Your task to perform on an android device: Open display settings Image 0: 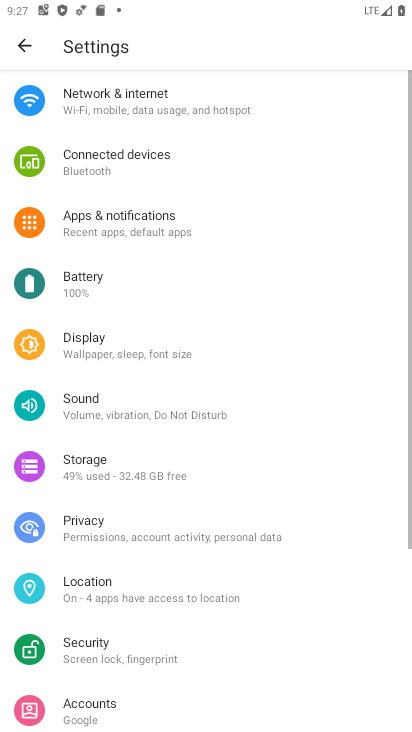
Step 0: press back button
Your task to perform on an android device: Open display settings Image 1: 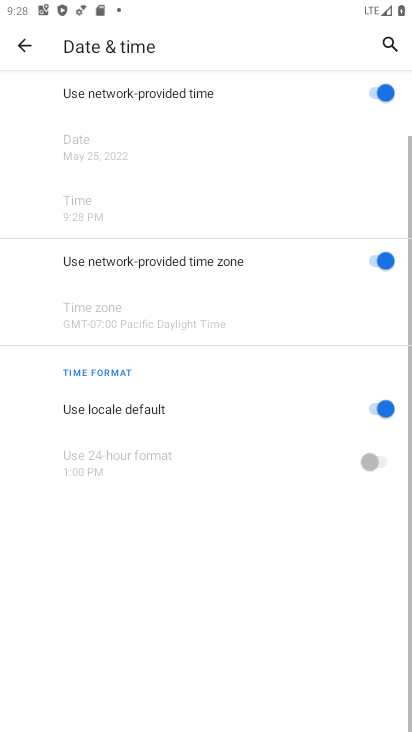
Step 1: click (16, 42)
Your task to perform on an android device: Open display settings Image 2: 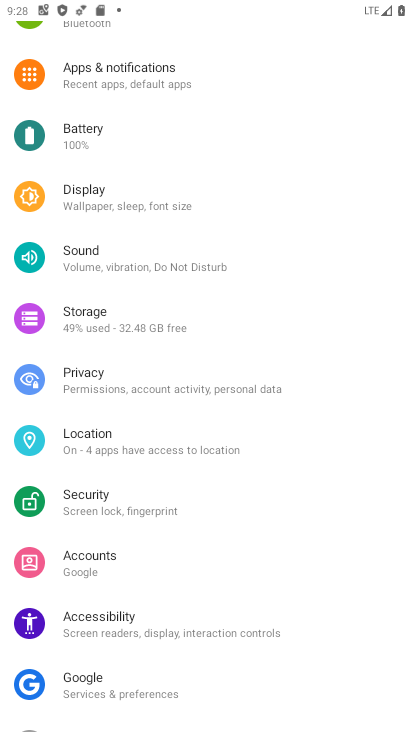
Step 2: click (123, 204)
Your task to perform on an android device: Open display settings Image 3: 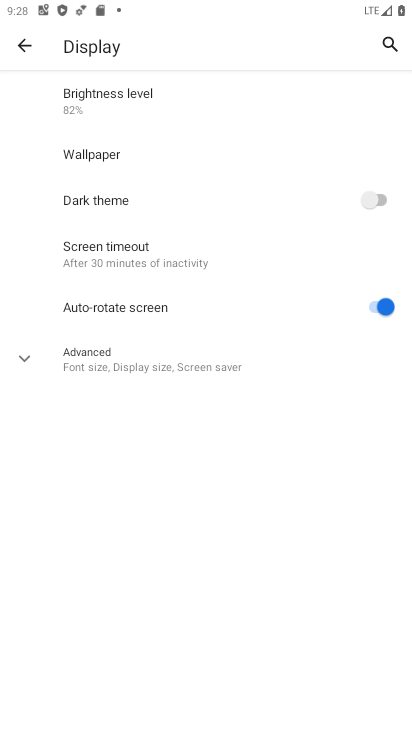
Step 3: task complete